Your task to perform on an android device: Open Yahoo.com Image 0: 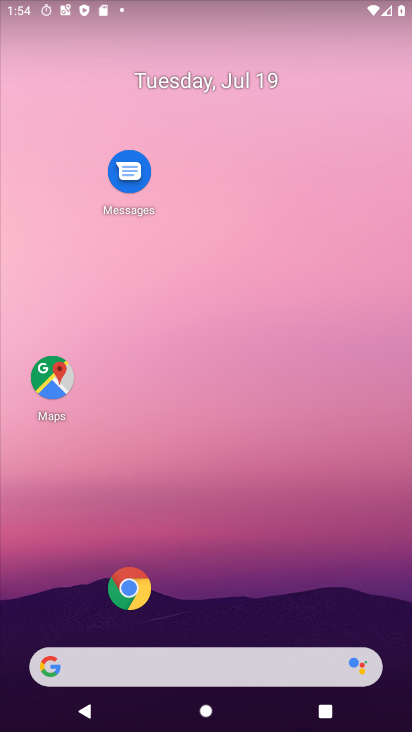
Step 0: click (102, 660)
Your task to perform on an android device: Open Yahoo.com Image 1: 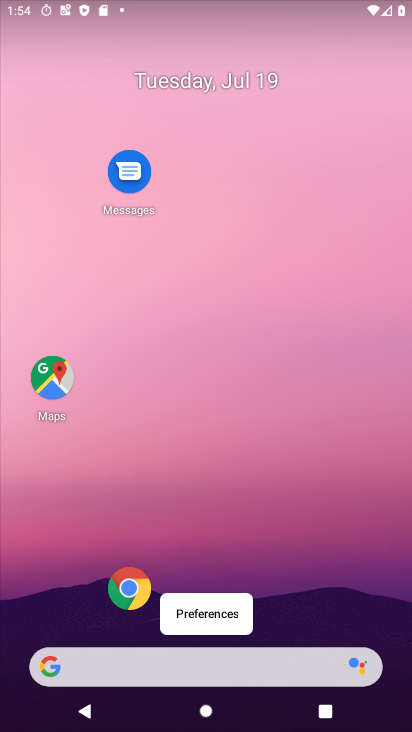
Step 1: click (103, 678)
Your task to perform on an android device: Open Yahoo.com Image 2: 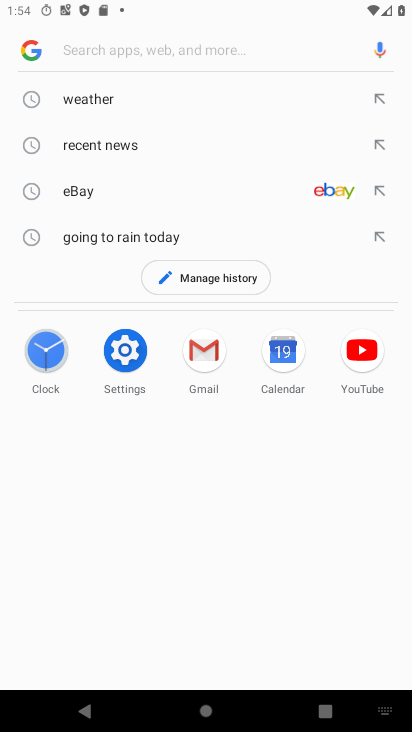
Step 2: click (97, 668)
Your task to perform on an android device: Open Yahoo.com Image 3: 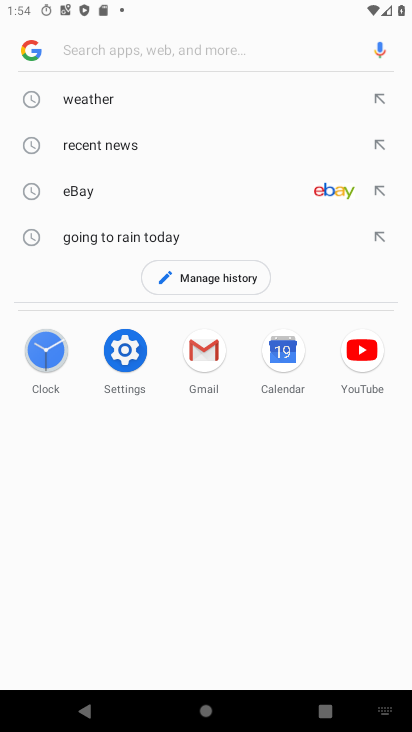
Step 3: type "Yahoo.com"
Your task to perform on an android device: Open Yahoo.com Image 4: 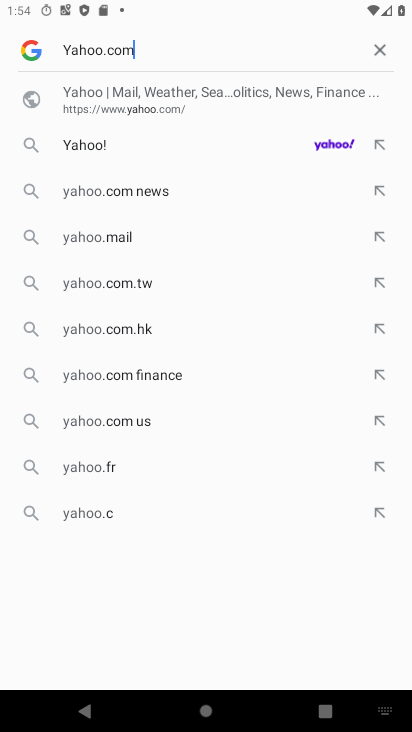
Step 4: type ""
Your task to perform on an android device: Open Yahoo.com Image 5: 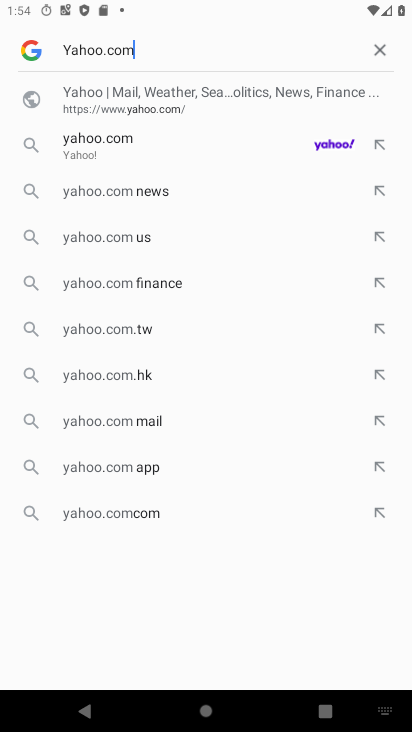
Step 5: type ""
Your task to perform on an android device: Open Yahoo.com Image 6: 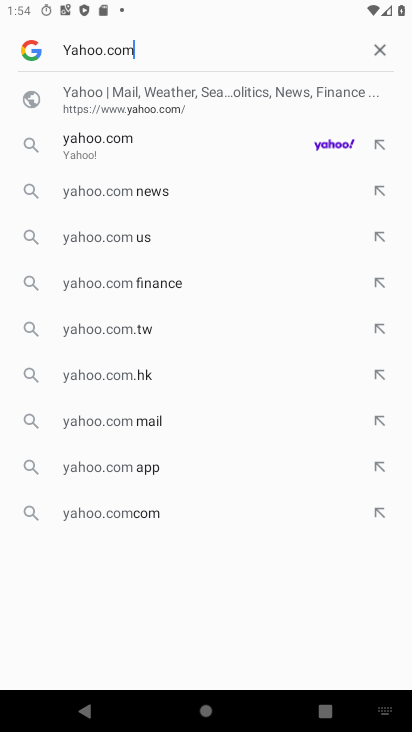
Step 6: type ""
Your task to perform on an android device: Open Yahoo.com Image 7: 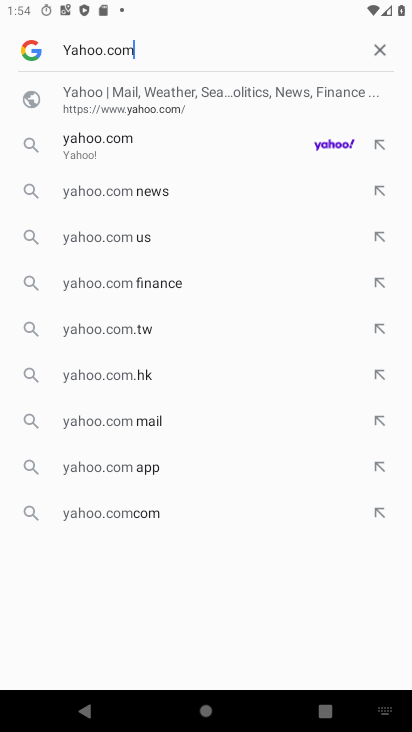
Step 7: task complete